Your task to perform on an android device: Search for "dell xps" on walmart, select the first entry, and add it to the cart. Image 0: 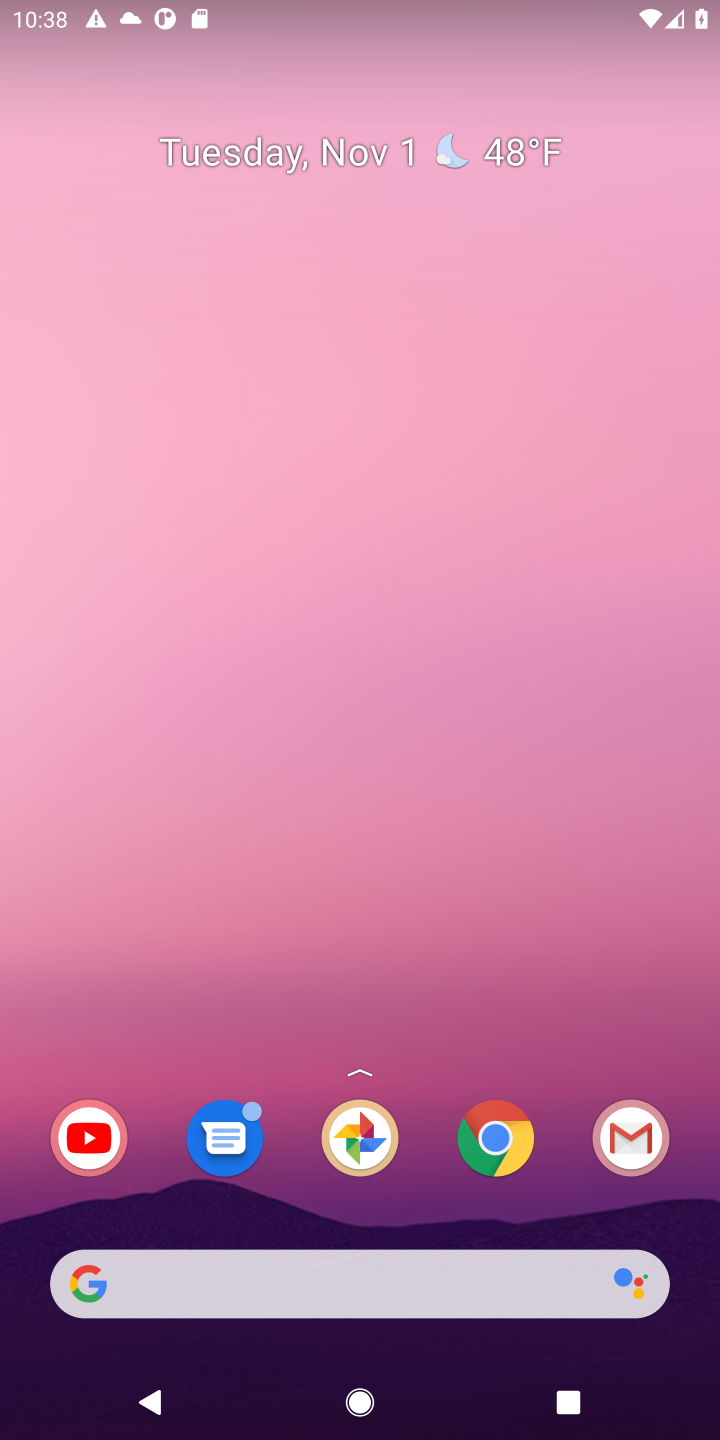
Step 0: drag from (430, 1069) to (484, 136)
Your task to perform on an android device: Search for "dell xps" on walmart, select the first entry, and add it to the cart. Image 1: 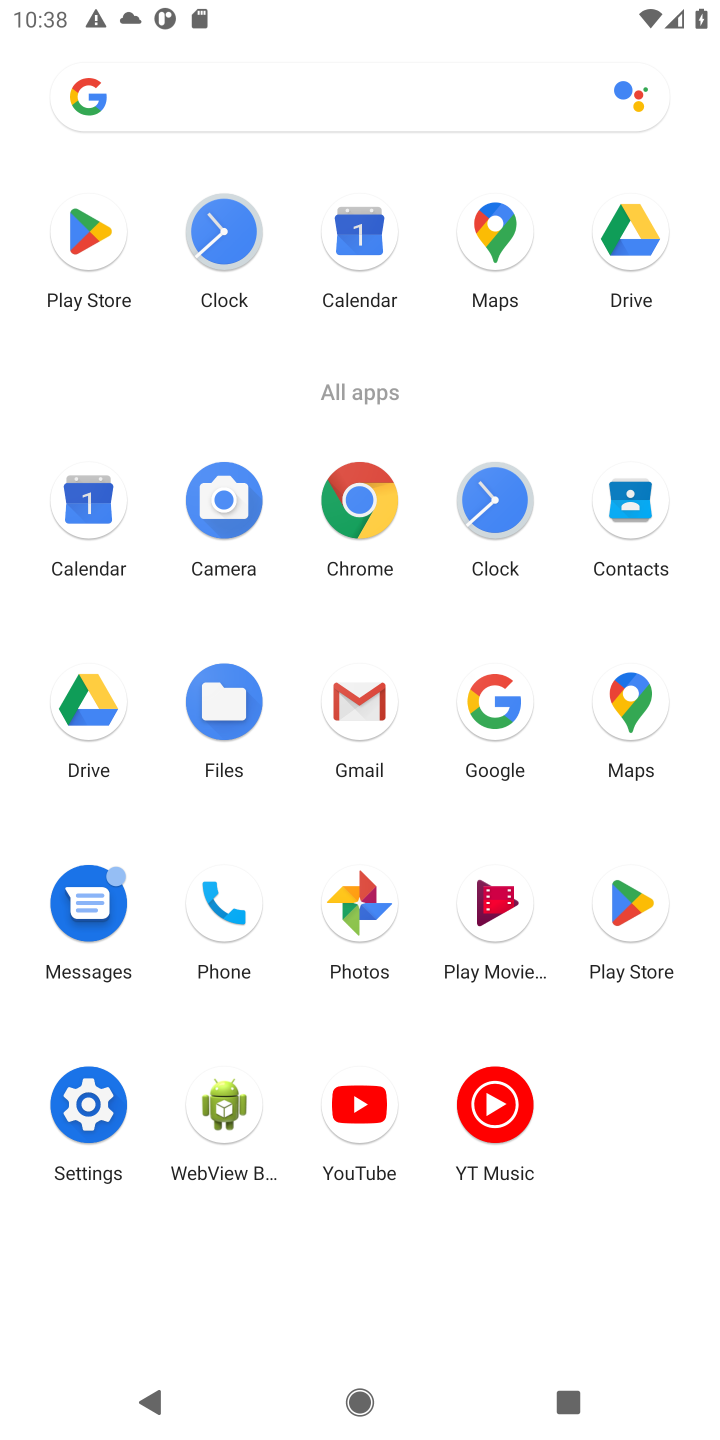
Step 1: click (358, 488)
Your task to perform on an android device: Search for "dell xps" on walmart, select the first entry, and add it to the cart. Image 2: 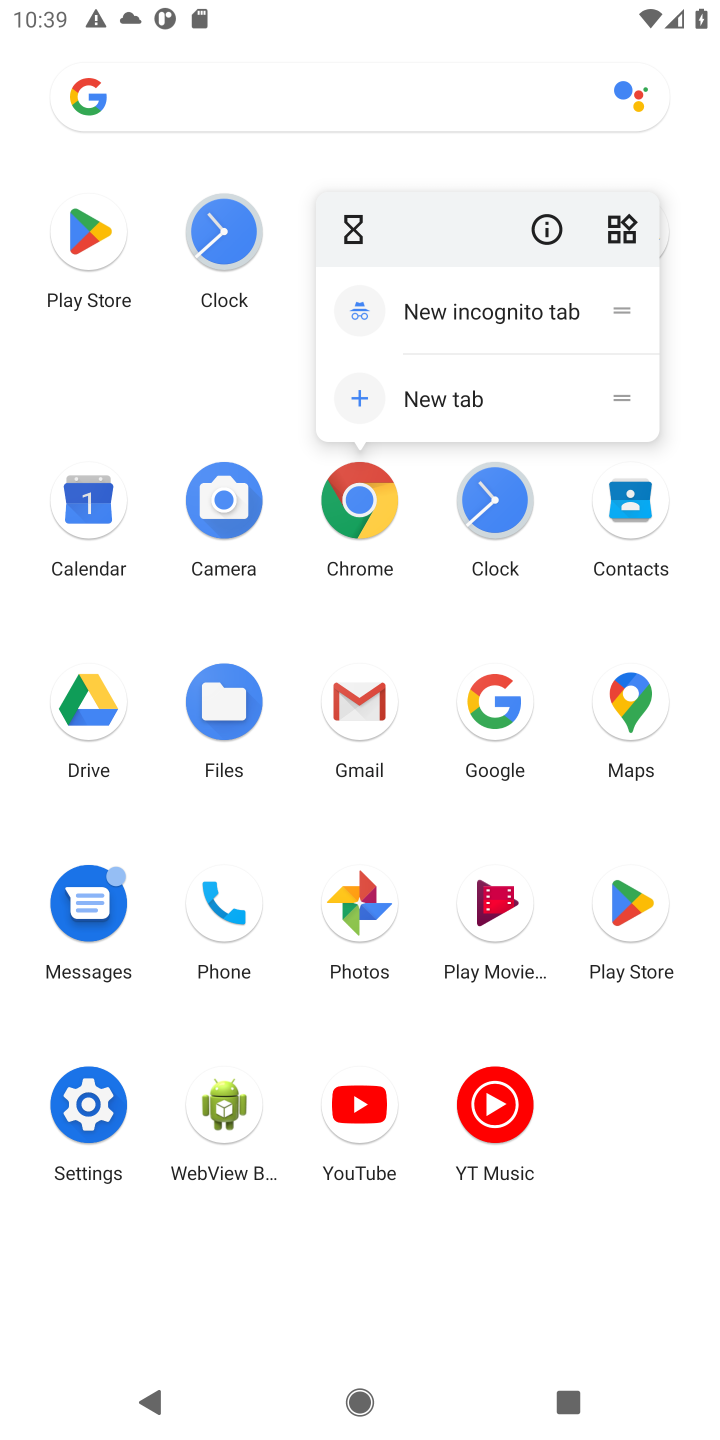
Step 2: click (365, 511)
Your task to perform on an android device: Search for "dell xps" on walmart, select the first entry, and add it to the cart. Image 3: 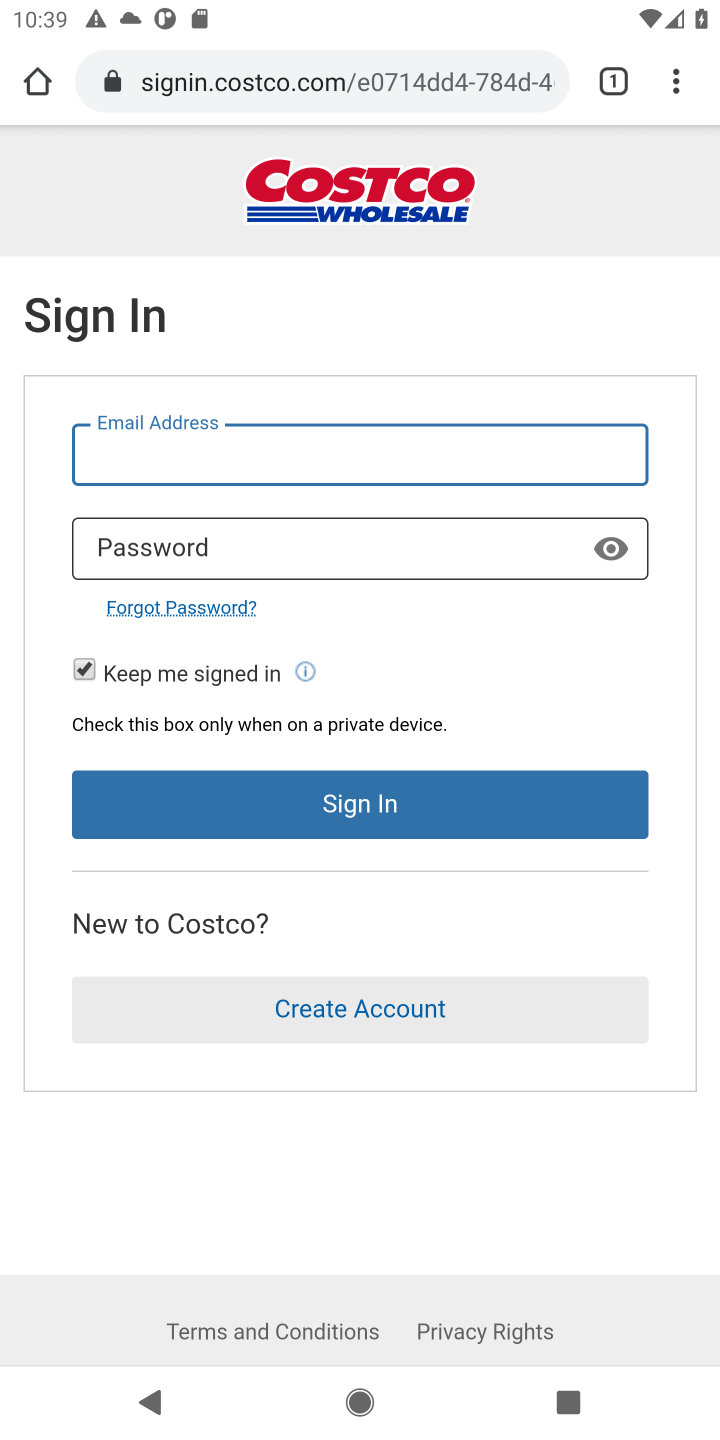
Step 3: click (175, 66)
Your task to perform on an android device: Search for "dell xps" on walmart, select the first entry, and add it to the cart. Image 4: 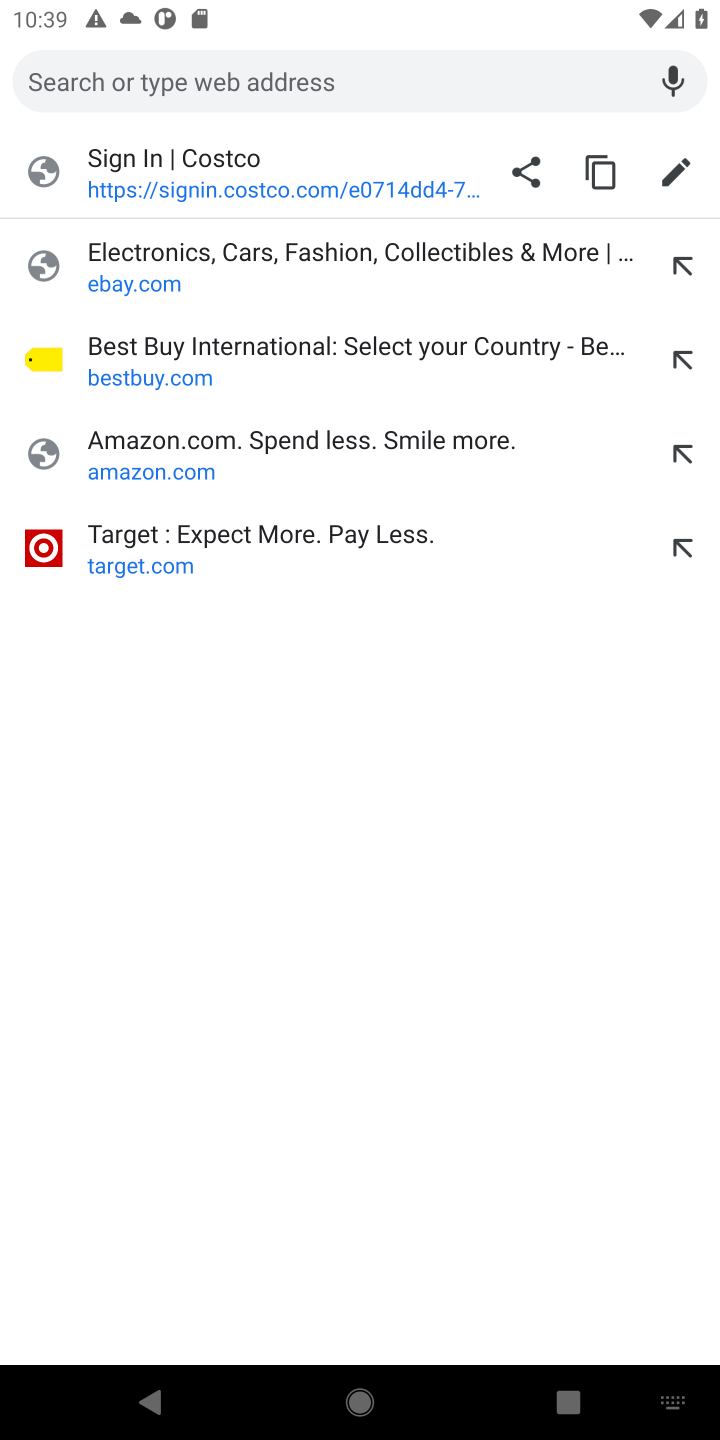
Step 4: type "walmart"
Your task to perform on an android device: Search for "dell xps" on walmart, select the first entry, and add it to the cart. Image 5: 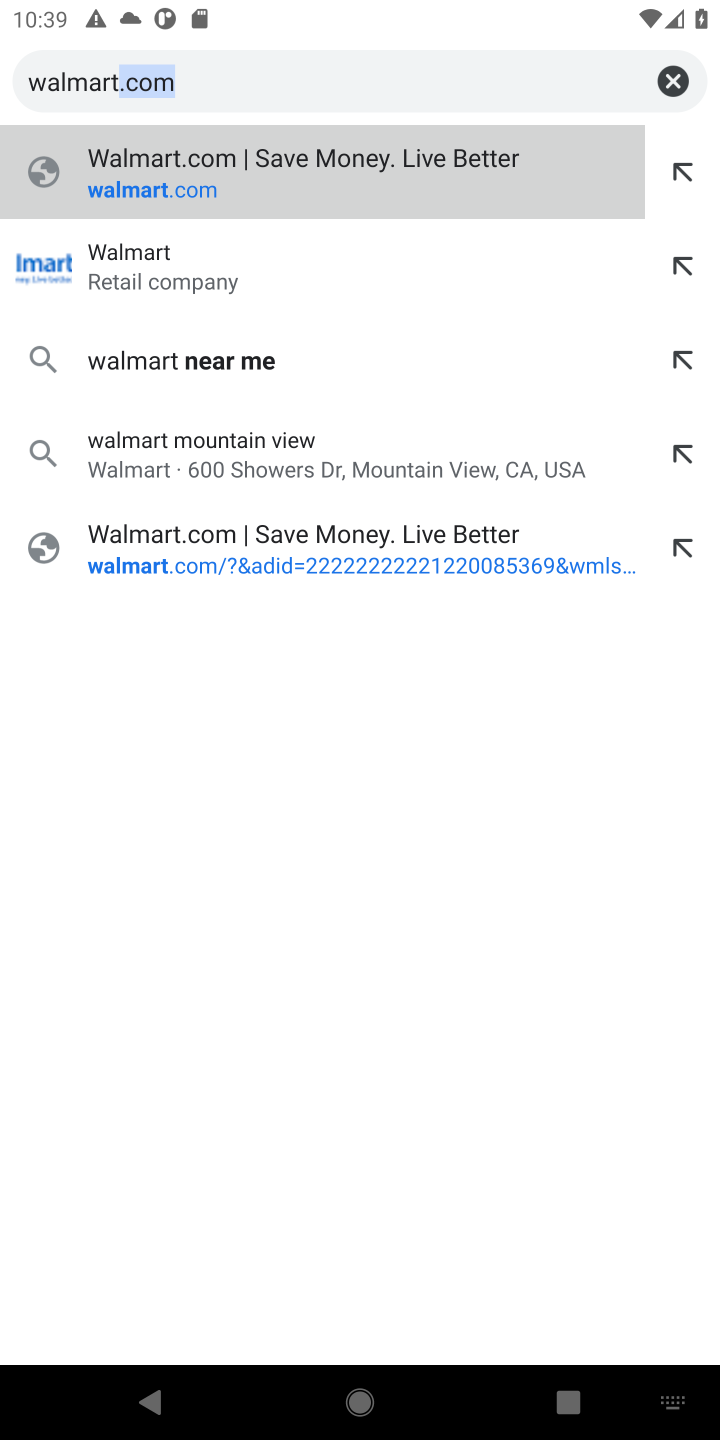
Step 5: click (219, 190)
Your task to perform on an android device: Search for "dell xps" on walmart, select the first entry, and add it to the cart. Image 6: 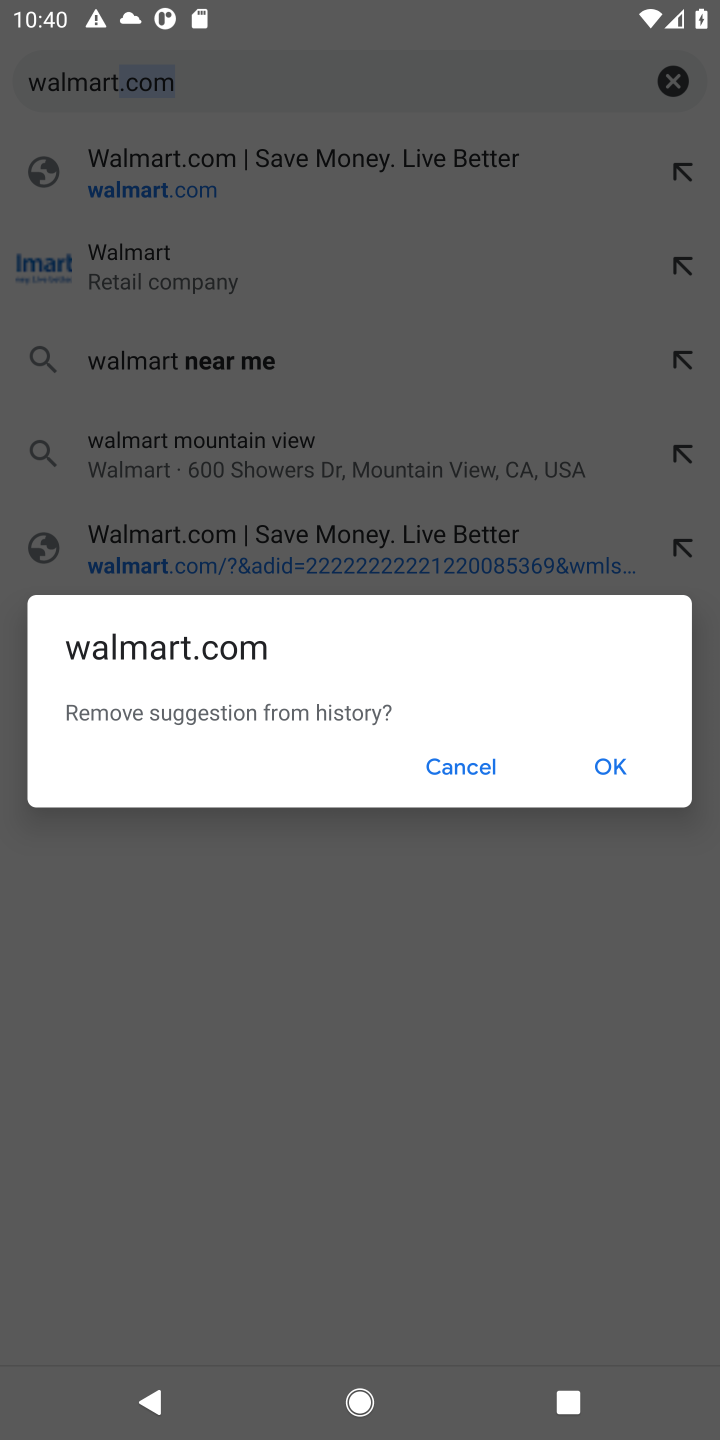
Step 6: click (442, 784)
Your task to perform on an android device: Search for "dell xps" on walmart, select the first entry, and add it to the cart. Image 7: 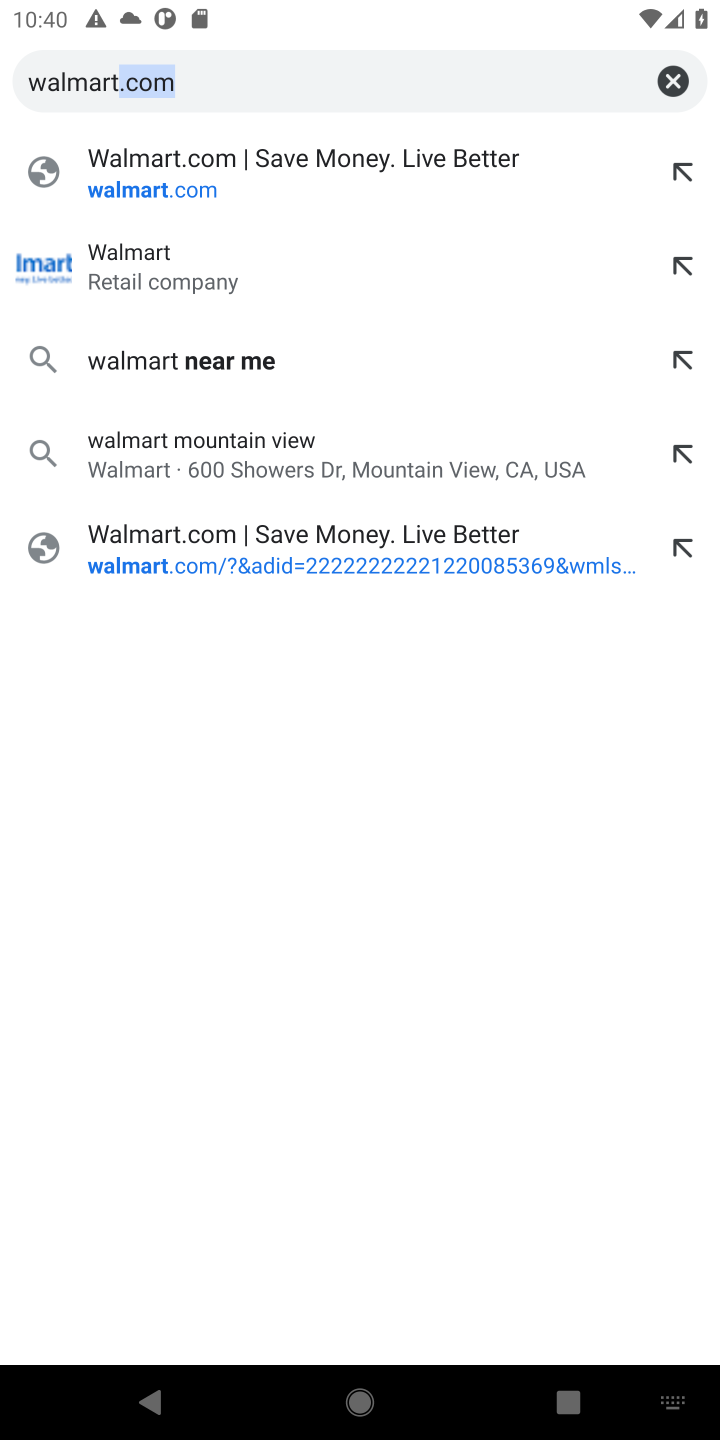
Step 7: click (117, 174)
Your task to perform on an android device: Search for "dell xps" on walmart, select the first entry, and add it to the cart. Image 8: 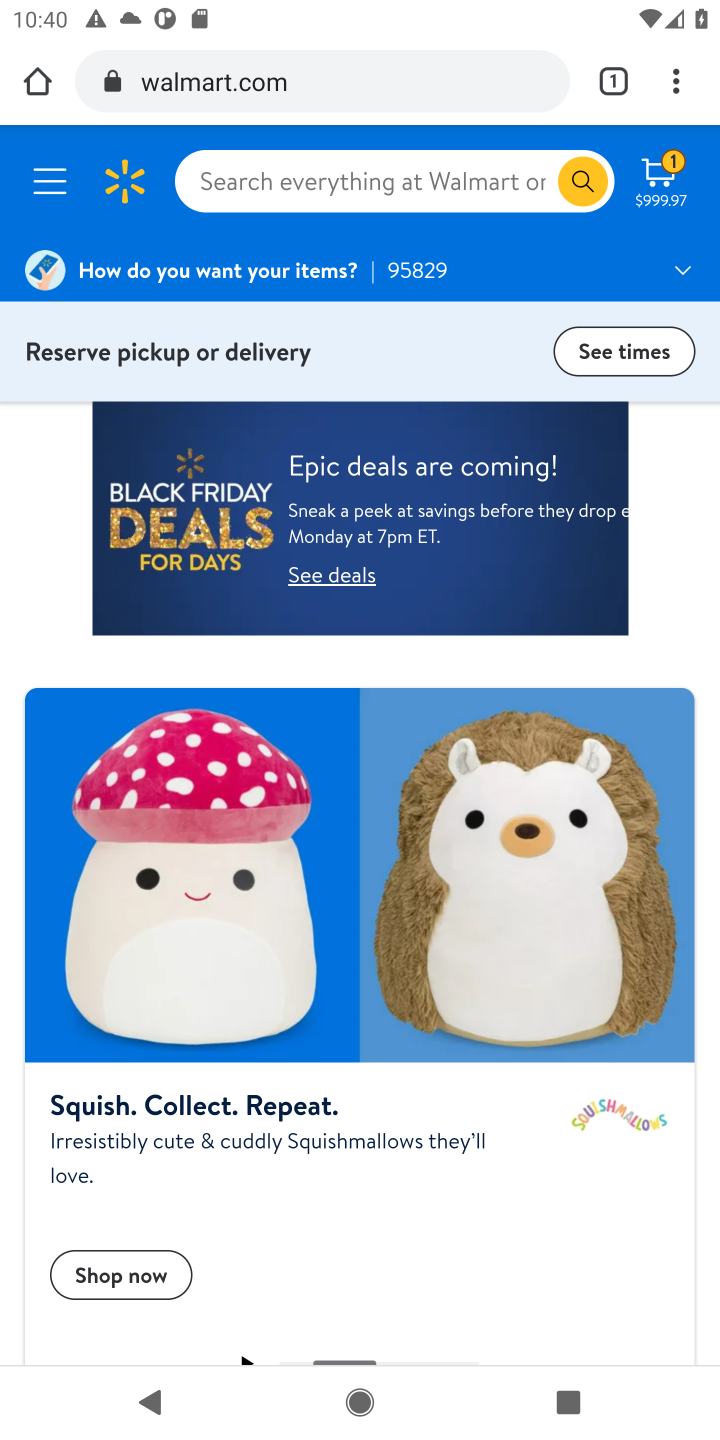
Step 8: click (255, 183)
Your task to perform on an android device: Search for "dell xps" on walmart, select the first entry, and add it to the cart. Image 9: 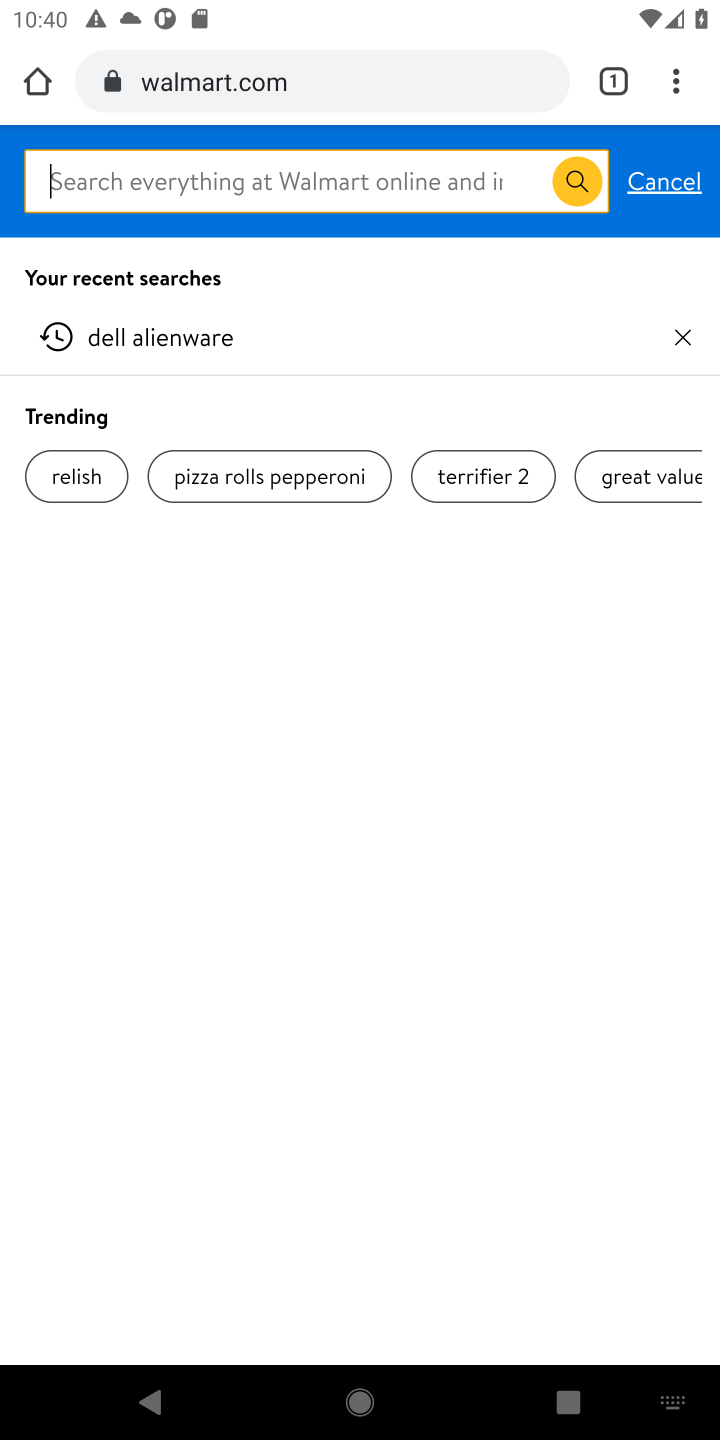
Step 9: type "dell xps"
Your task to perform on an android device: Search for "dell xps" on walmart, select the first entry, and add it to the cart. Image 10: 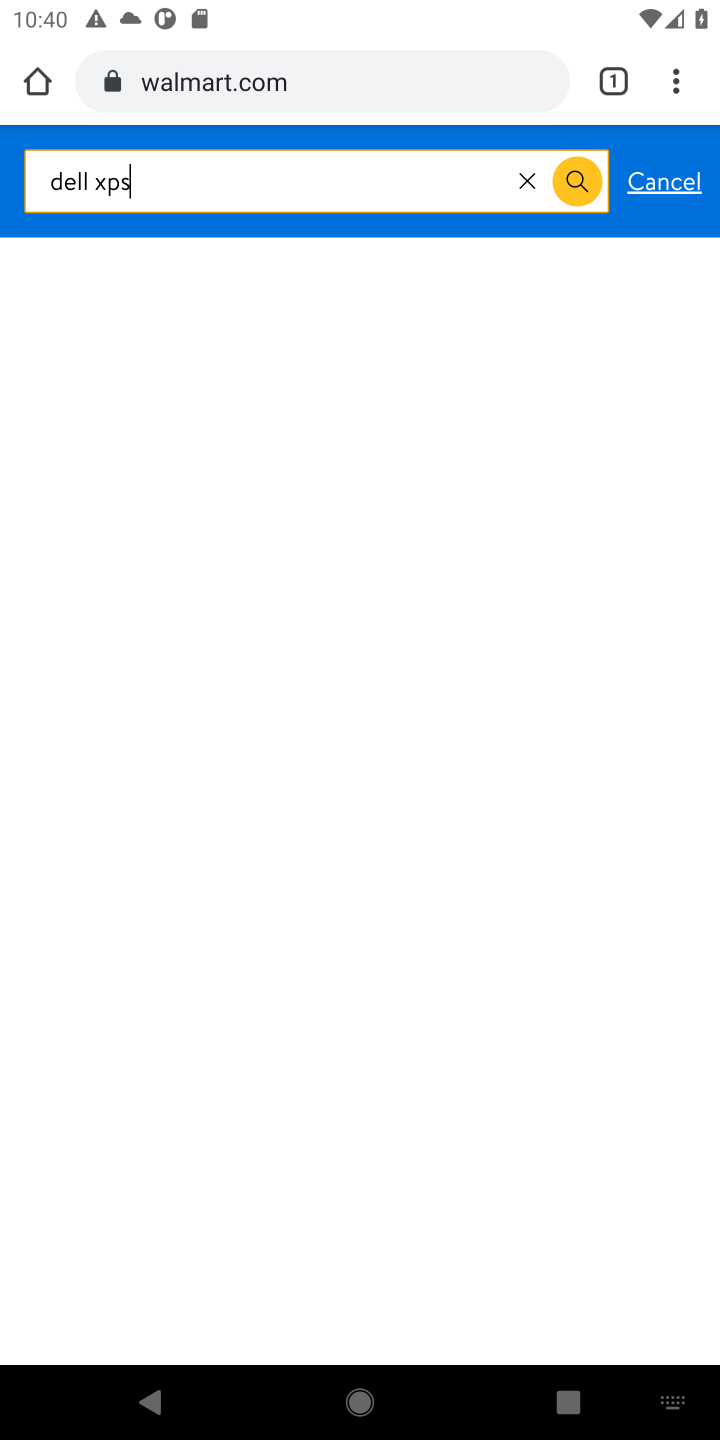
Step 10: type ""
Your task to perform on an android device: Search for "dell xps" on walmart, select the first entry, and add it to the cart. Image 11: 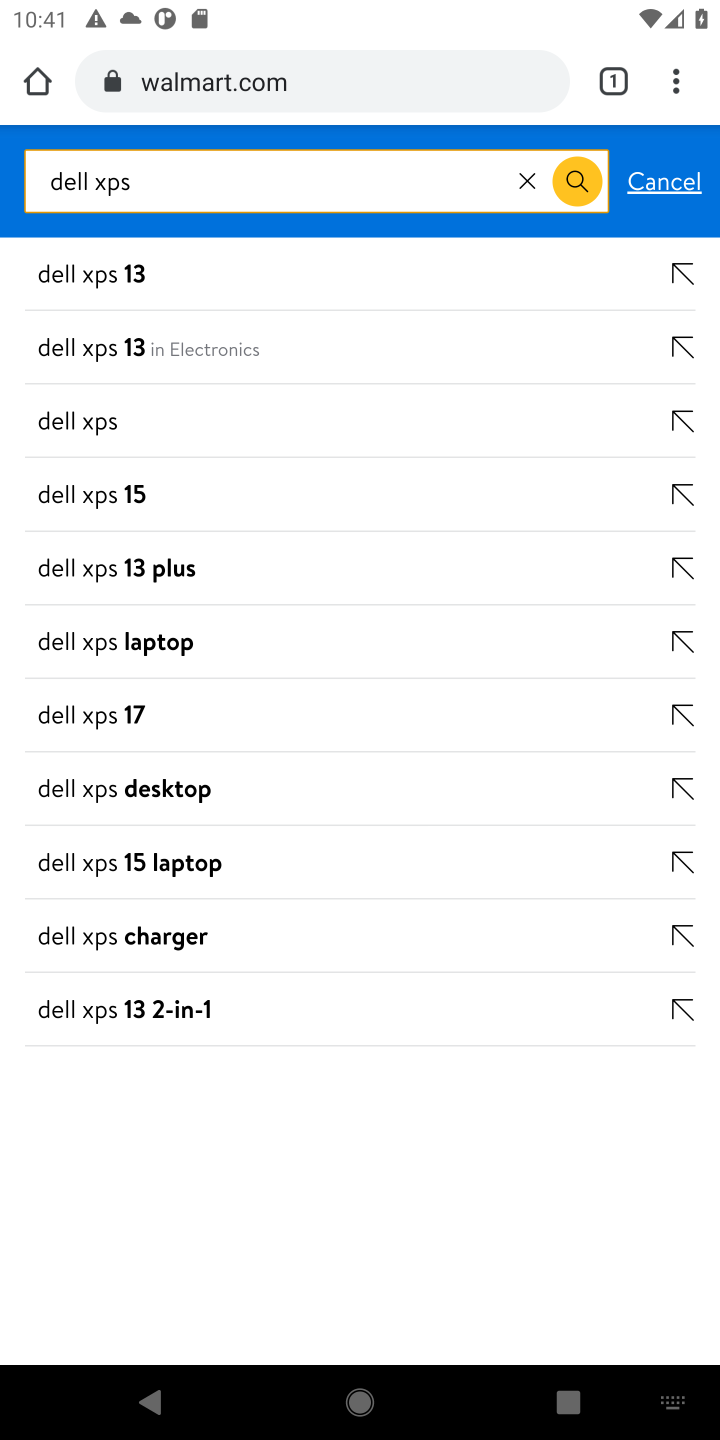
Step 11: click (139, 431)
Your task to perform on an android device: Search for "dell xps" on walmart, select the first entry, and add it to the cart. Image 12: 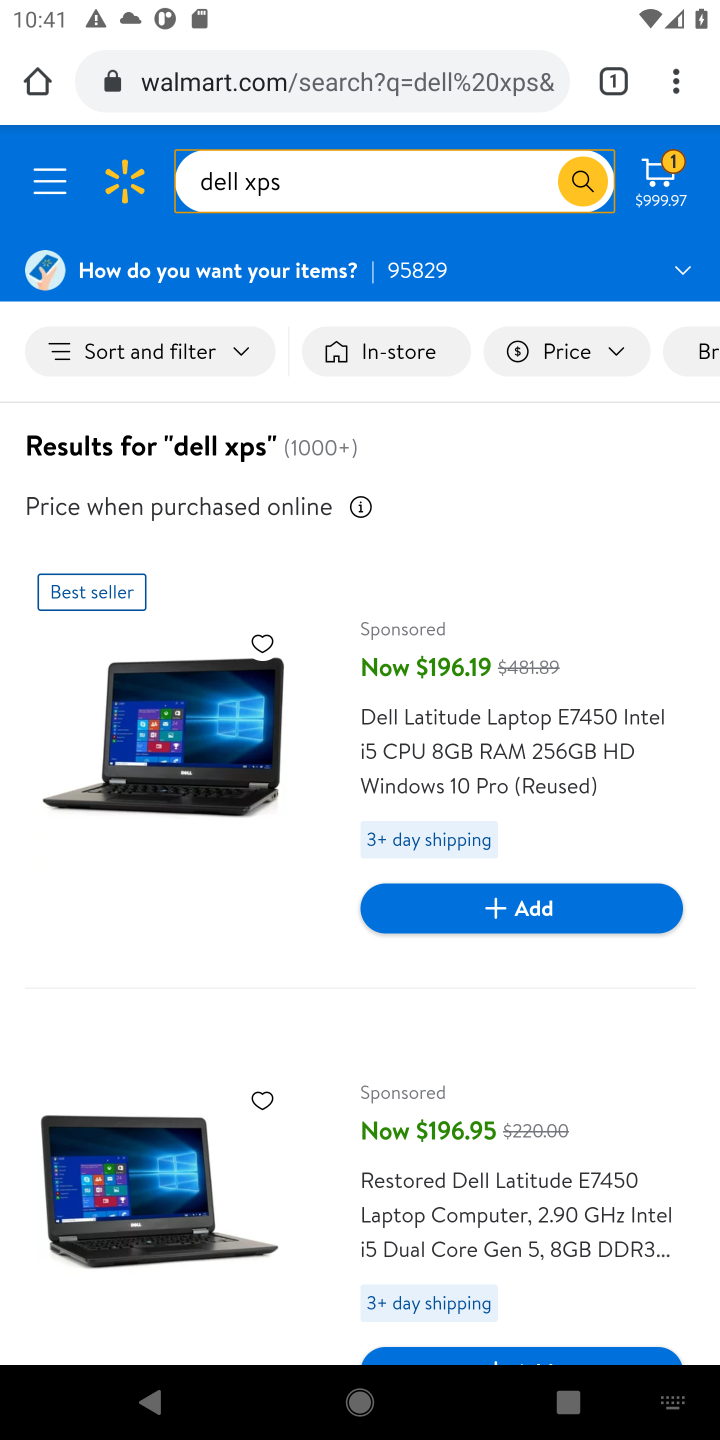
Step 12: drag from (321, 1257) to (332, 660)
Your task to perform on an android device: Search for "dell xps" on walmart, select the first entry, and add it to the cart. Image 13: 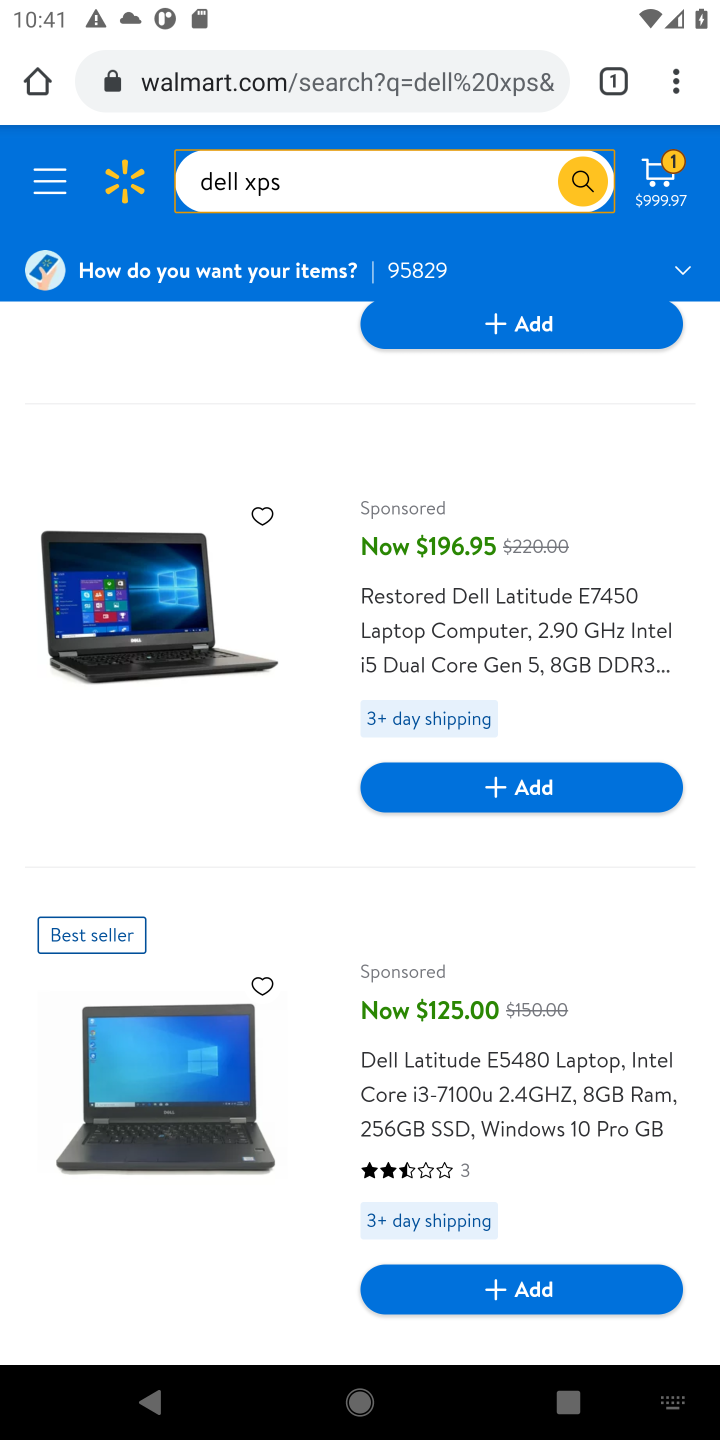
Step 13: click (496, 1050)
Your task to perform on an android device: Search for "dell xps" on walmart, select the first entry, and add it to the cart. Image 14: 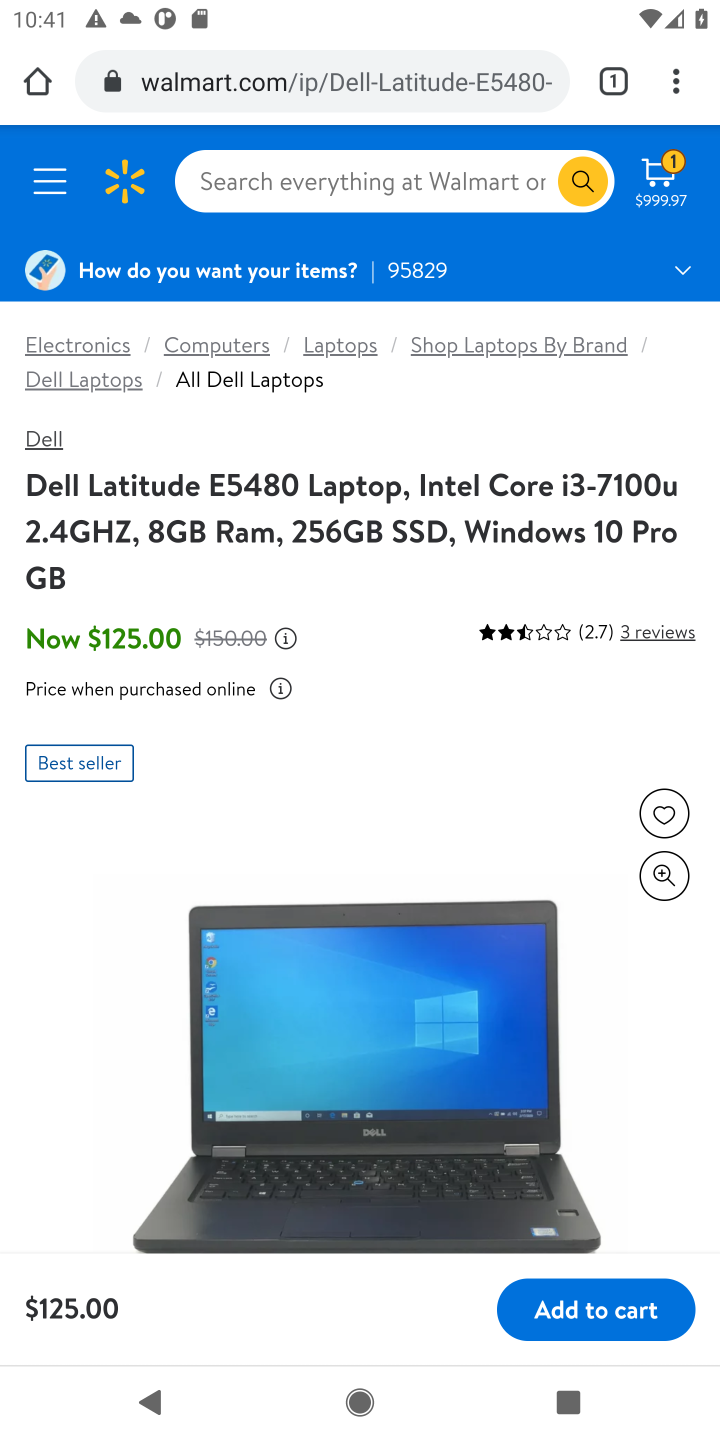
Step 14: drag from (96, 1176) to (132, 189)
Your task to perform on an android device: Search for "dell xps" on walmart, select the first entry, and add it to the cart. Image 15: 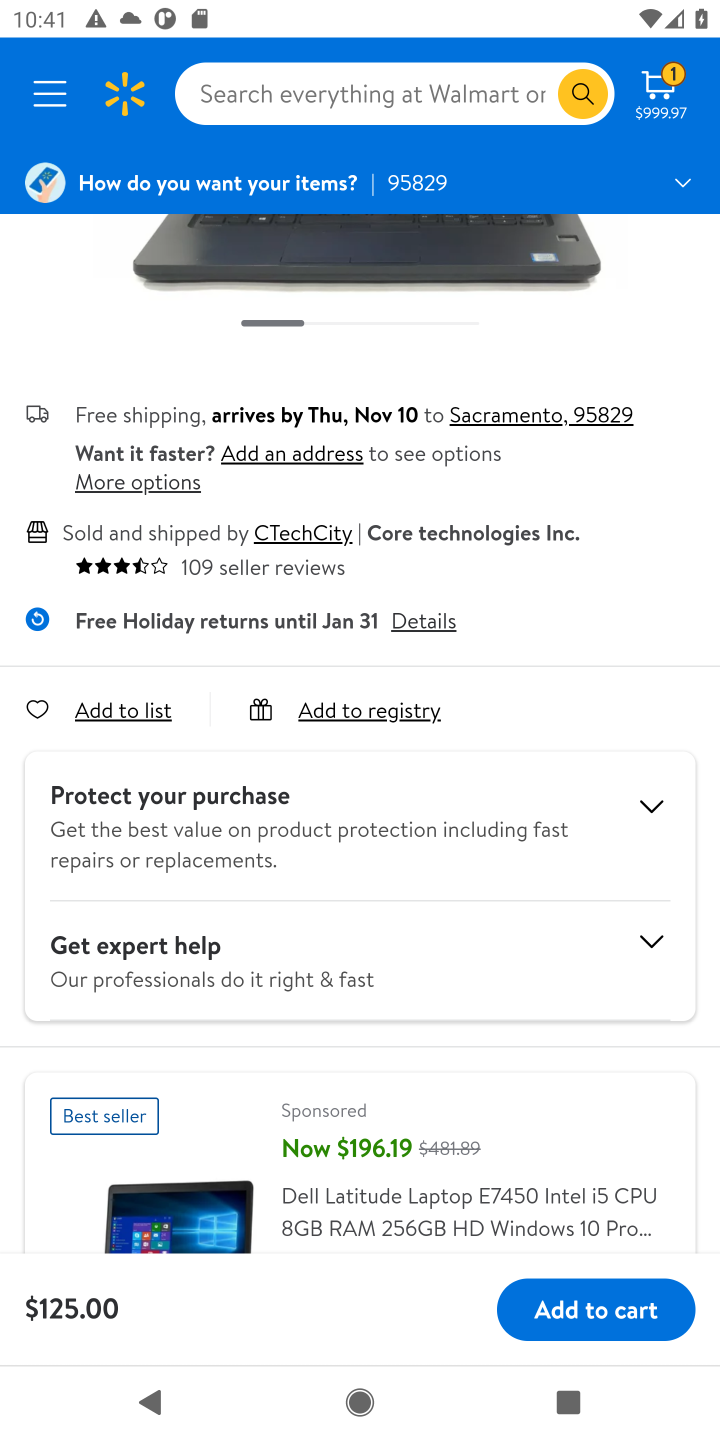
Step 15: click (571, 1307)
Your task to perform on an android device: Search for "dell xps" on walmart, select the first entry, and add it to the cart. Image 16: 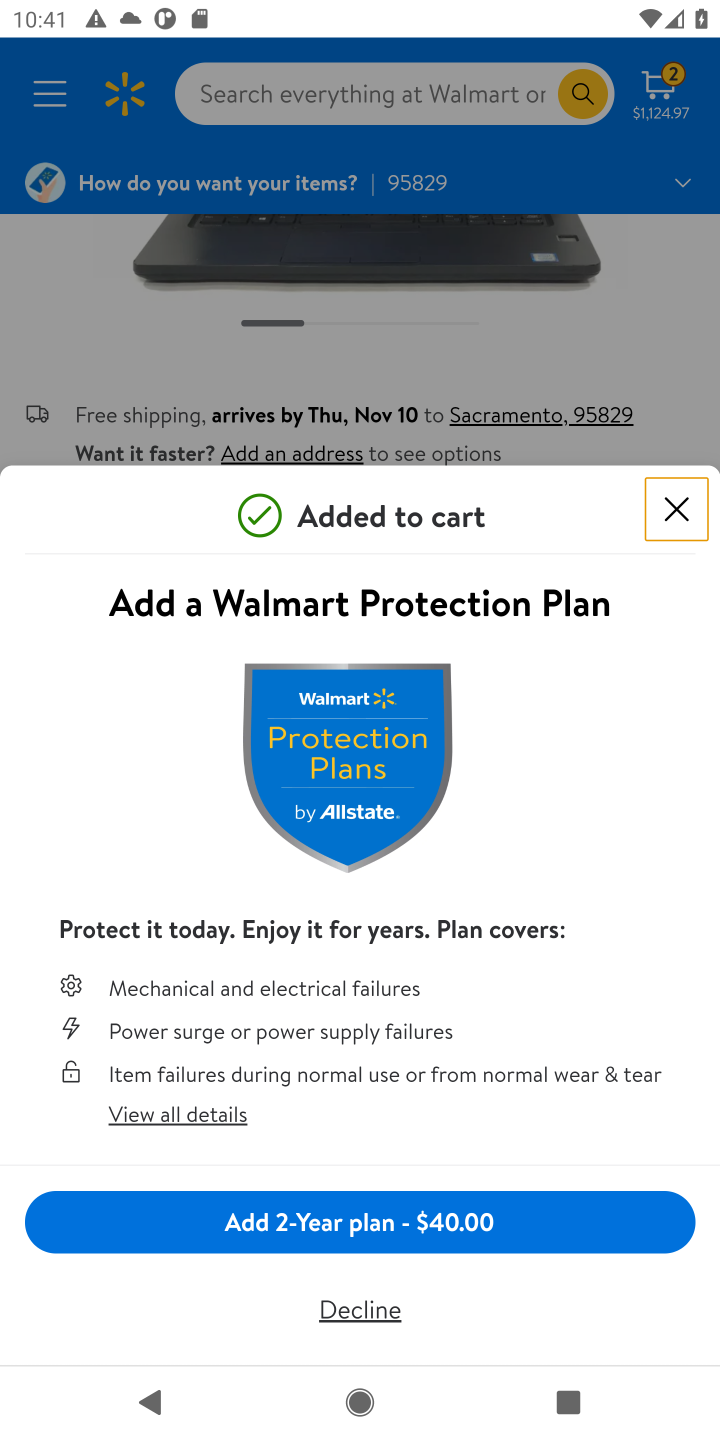
Step 16: click (657, 80)
Your task to perform on an android device: Search for "dell xps" on walmart, select the first entry, and add it to the cart. Image 17: 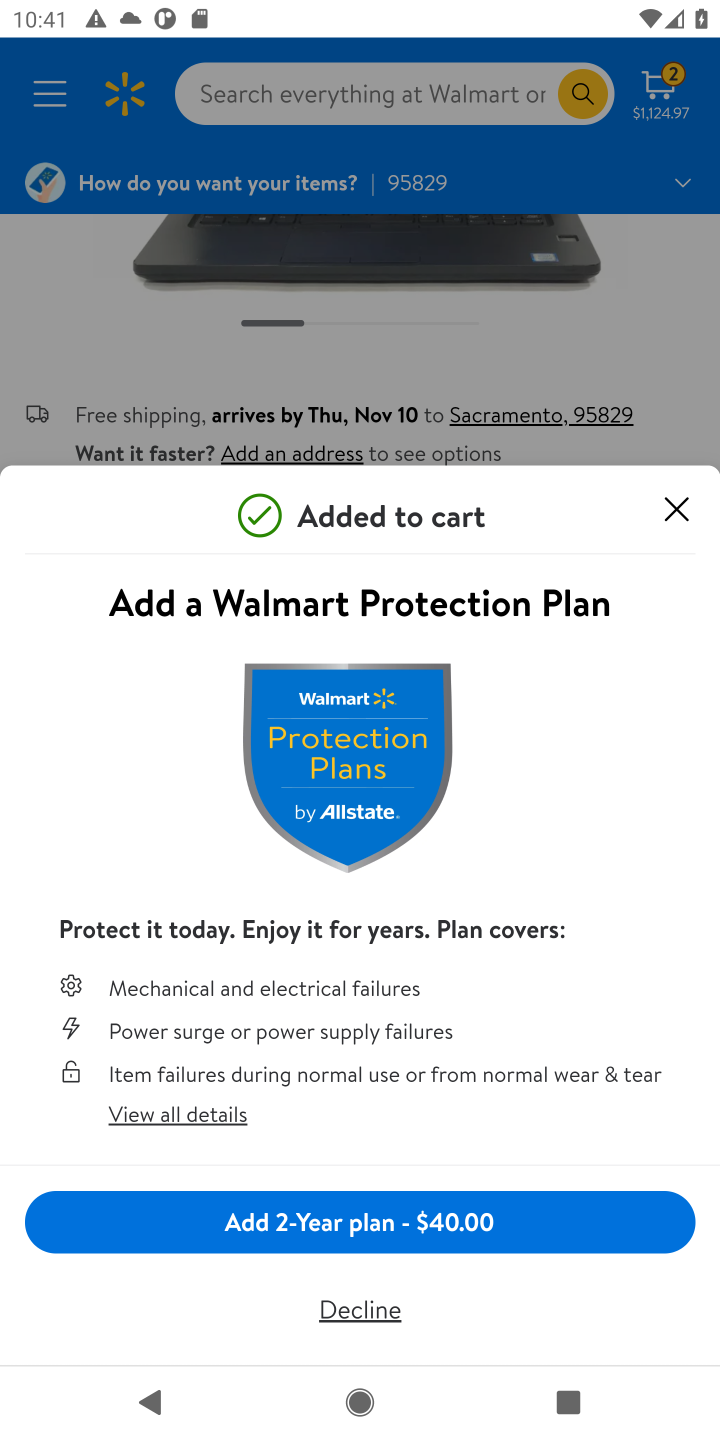
Step 17: click (682, 507)
Your task to perform on an android device: Search for "dell xps" on walmart, select the first entry, and add it to the cart. Image 18: 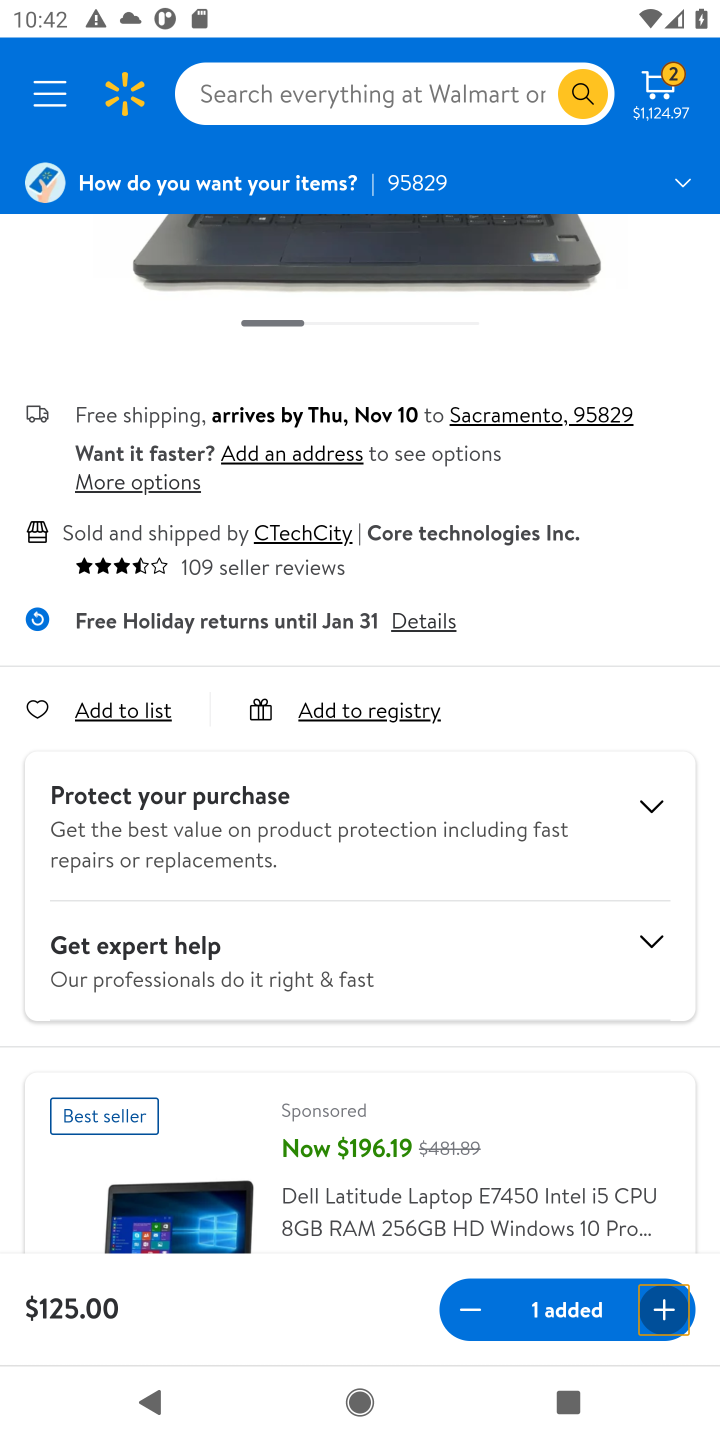
Step 18: click (661, 92)
Your task to perform on an android device: Search for "dell xps" on walmart, select the first entry, and add it to the cart. Image 19: 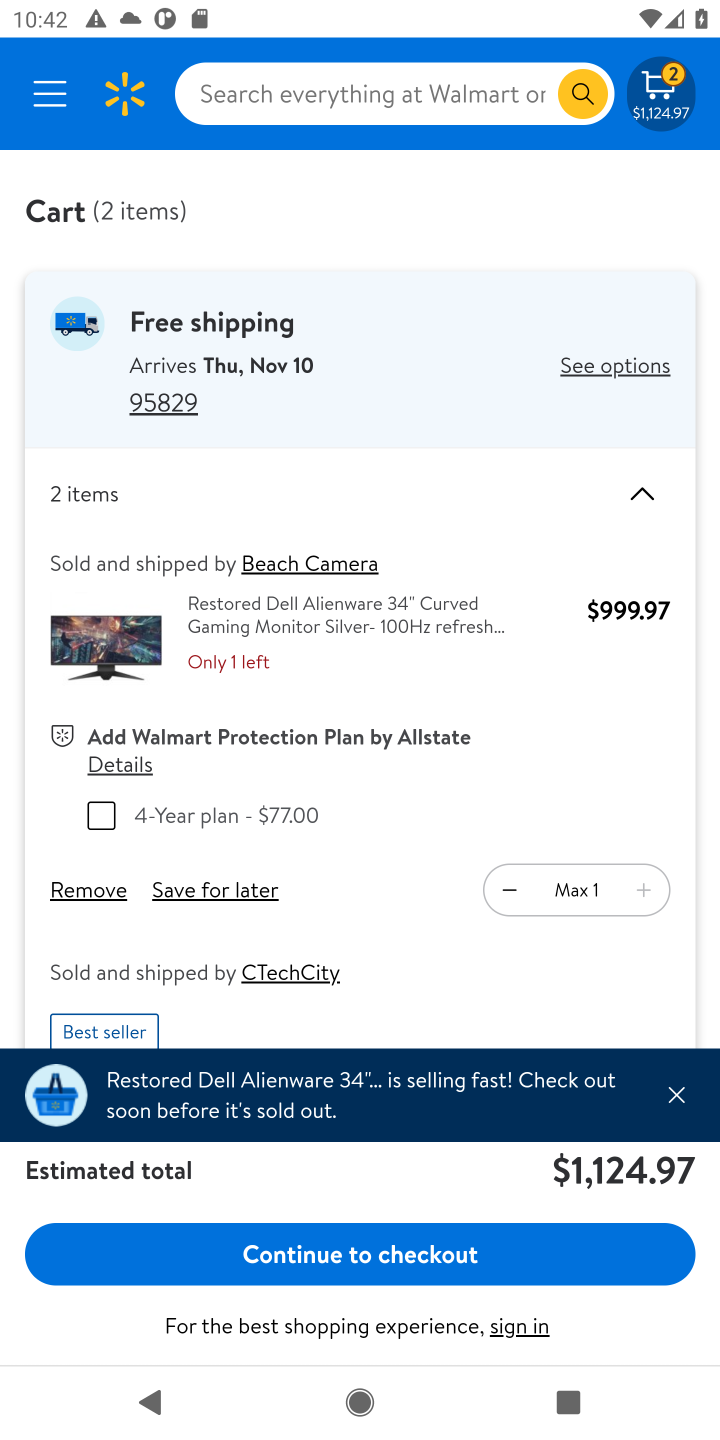
Step 19: task complete